Your task to perform on an android device: read, delete, or share a saved page in the chrome app Image 0: 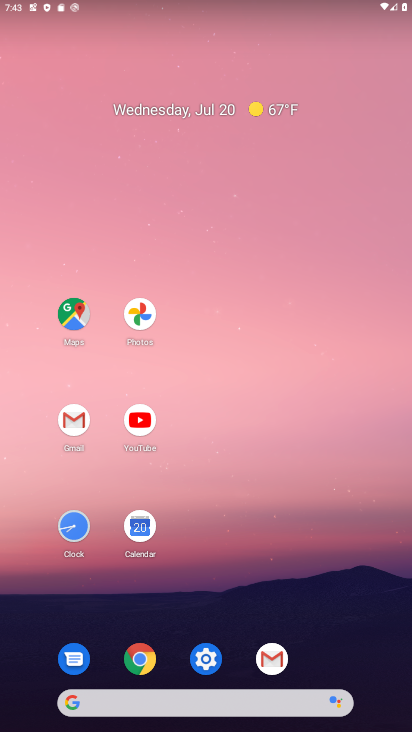
Step 0: click (142, 666)
Your task to perform on an android device: read, delete, or share a saved page in the chrome app Image 1: 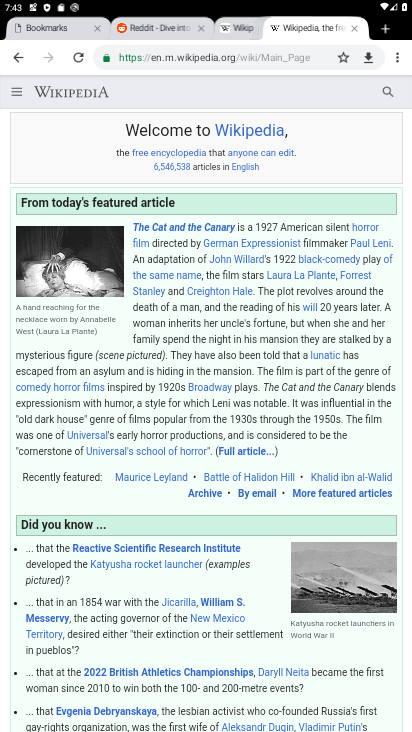
Step 1: click (397, 62)
Your task to perform on an android device: read, delete, or share a saved page in the chrome app Image 2: 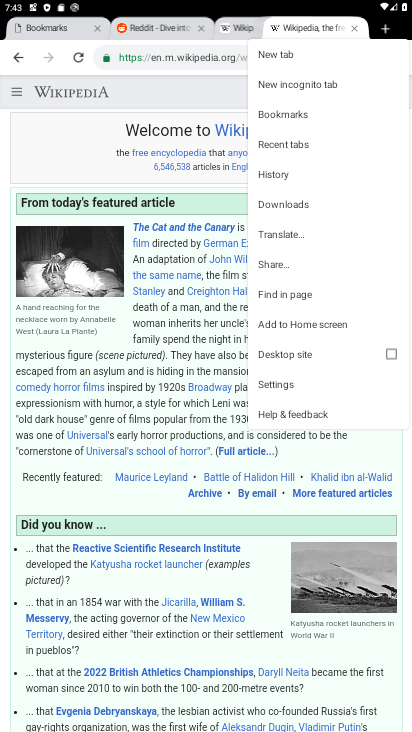
Step 2: click (286, 202)
Your task to perform on an android device: read, delete, or share a saved page in the chrome app Image 3: 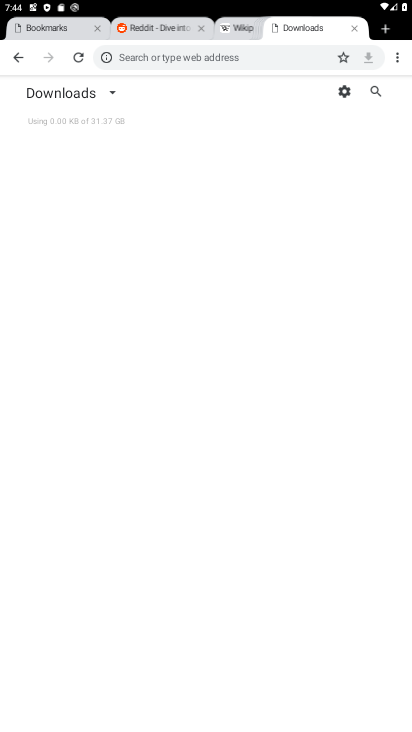
Step 3: task complete